Your task to perform on an android device: Open Youtube and go to "Your channel" Image 0: 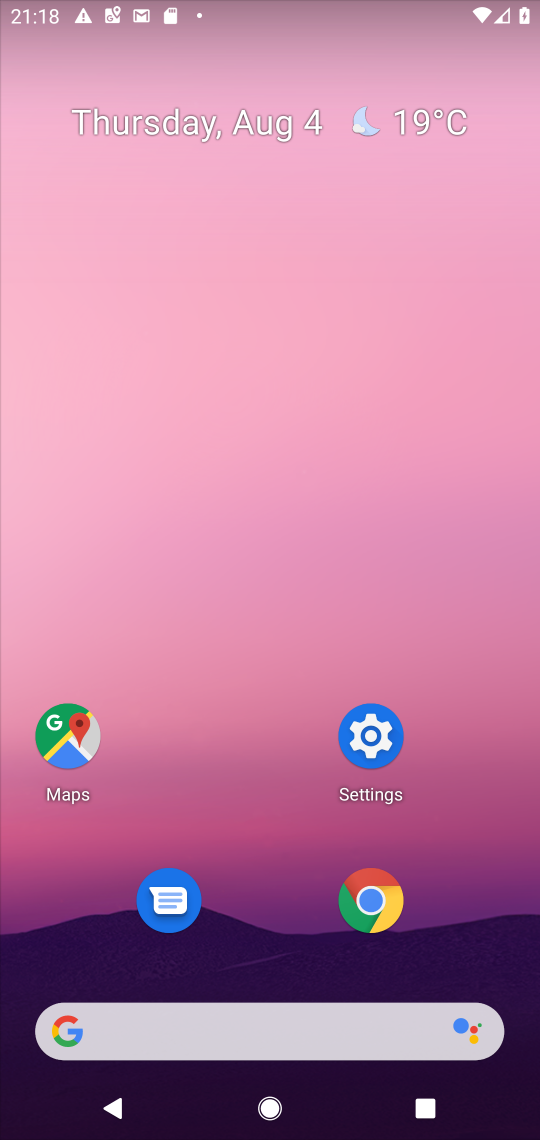
Step 0: press home button
Your task to perform on an android device: Open Youtube and go to "Your channel" Image 1: 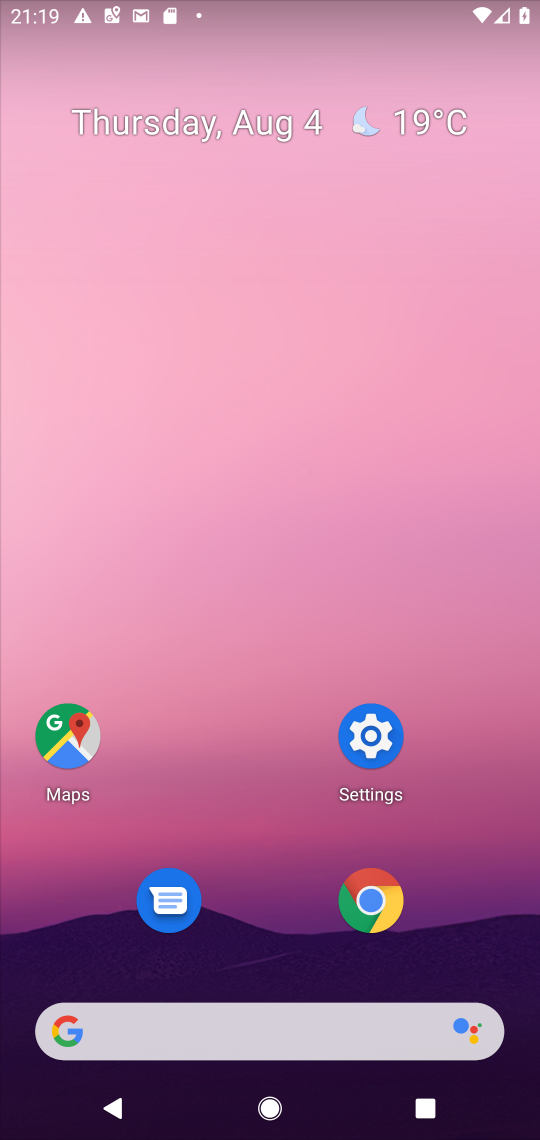
Step 1: drag from (265, 1034) to (479, 17)
Your task to perform on an android device: Open Youtube and go to "Your channel" Image 2: 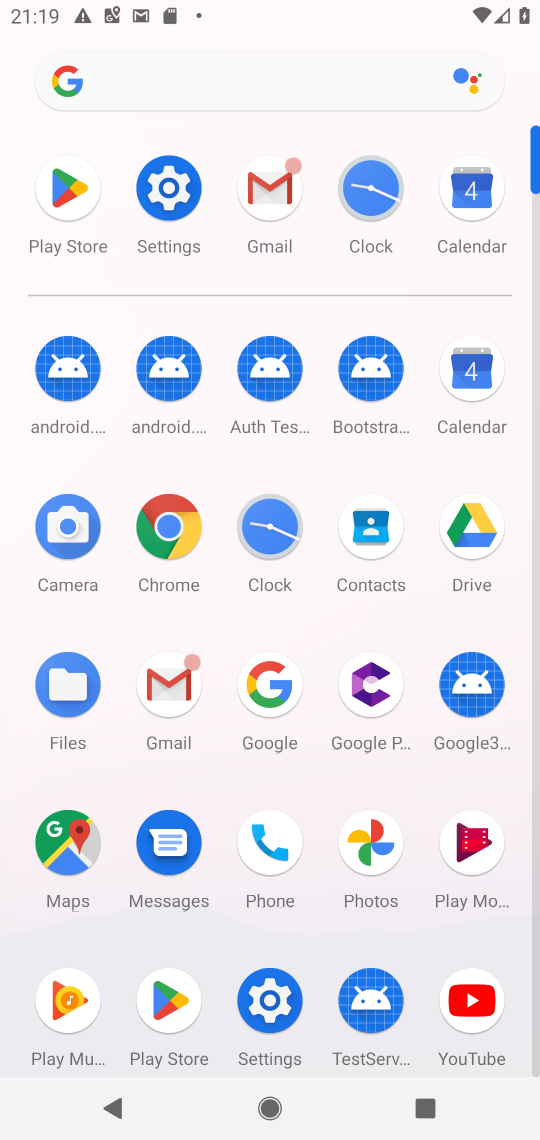
Step 2: click (474, 1001)
Your task to perform on an android device: Open Youtube and go to "Your channel" Image 3: 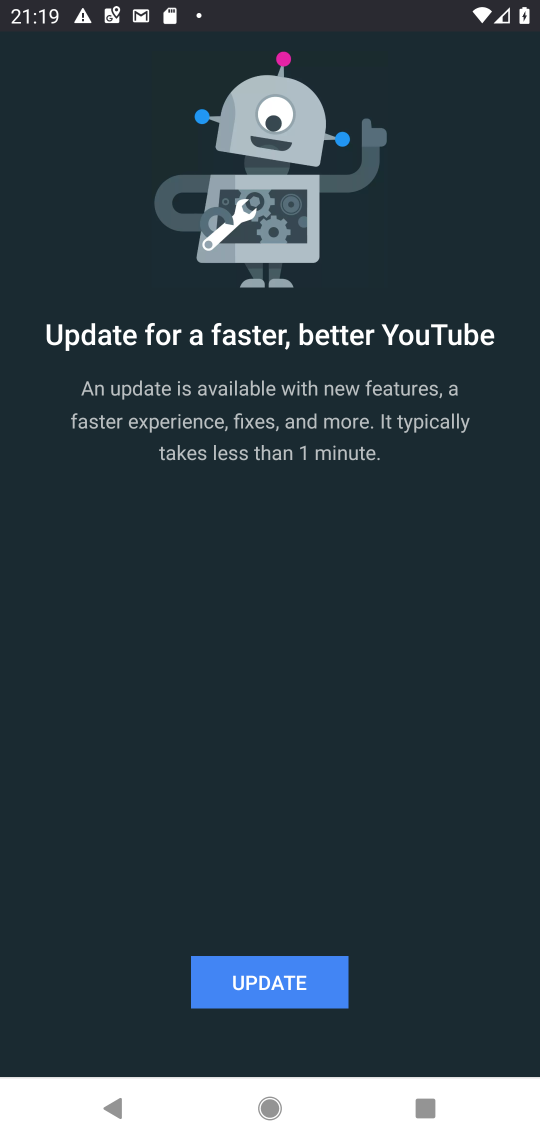
Step 3: click (266, 977)
Your task to perform on an android device: Open Youtube and go to "Your channel" Image 4: 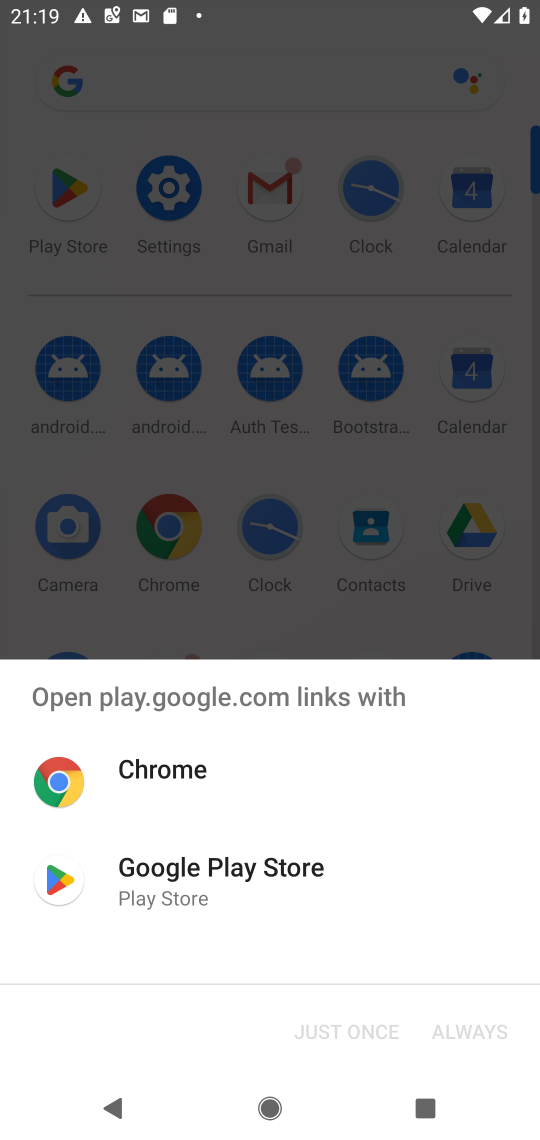
Step 4: click (190, 886)
Your task to perform on an android device: Open Youtube and go to "Your channel" Image 5: 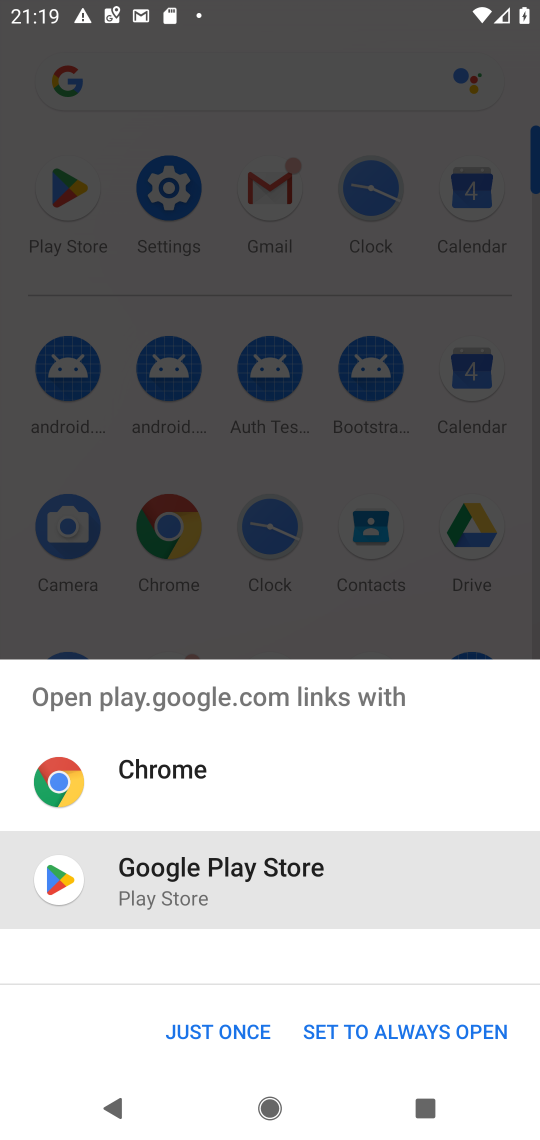
Step 5: click (240, 1030)
Your task to perform on an android device: Open Youtube and go to "Your channel" Image 6: 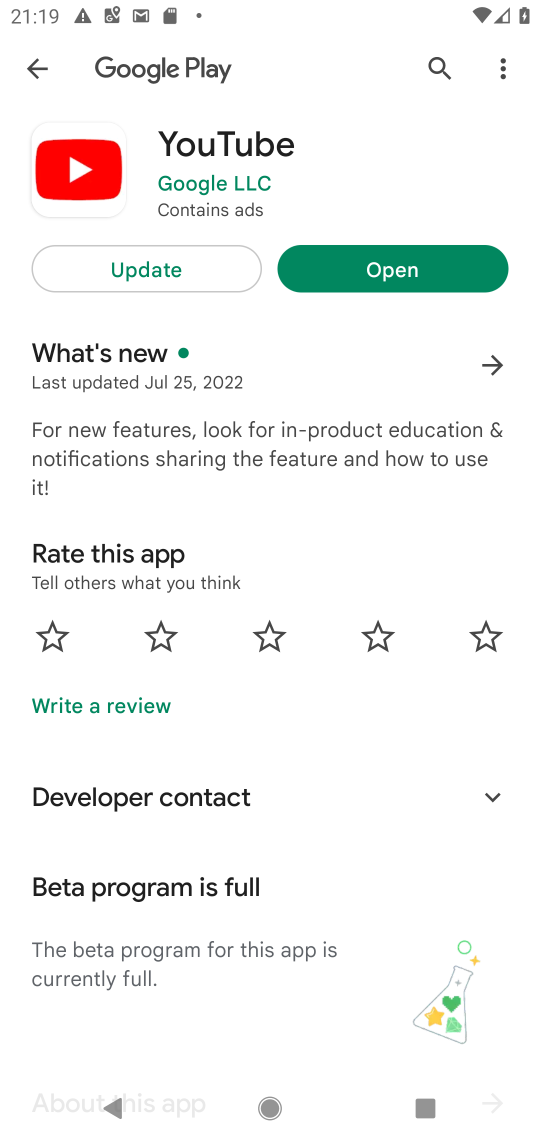
Step 6: click (170, 268)
Your task to perform on an android device: Open Youtube and go to "Your channel" Image 7: 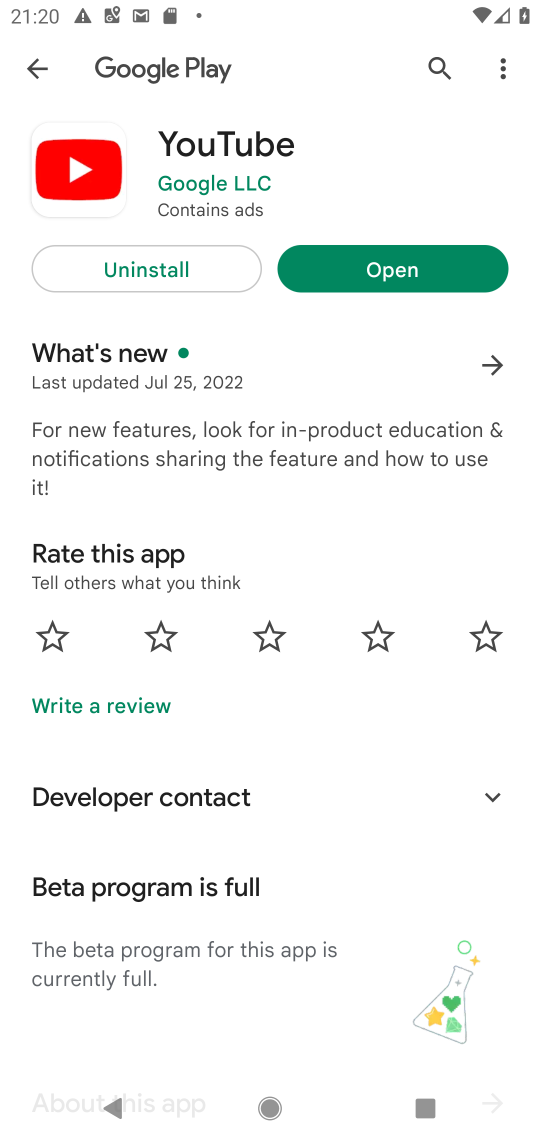
Step 7: click (411, 263)
Your task to perform on an android device: Open Youtube and go to "Your channel" Image 8: 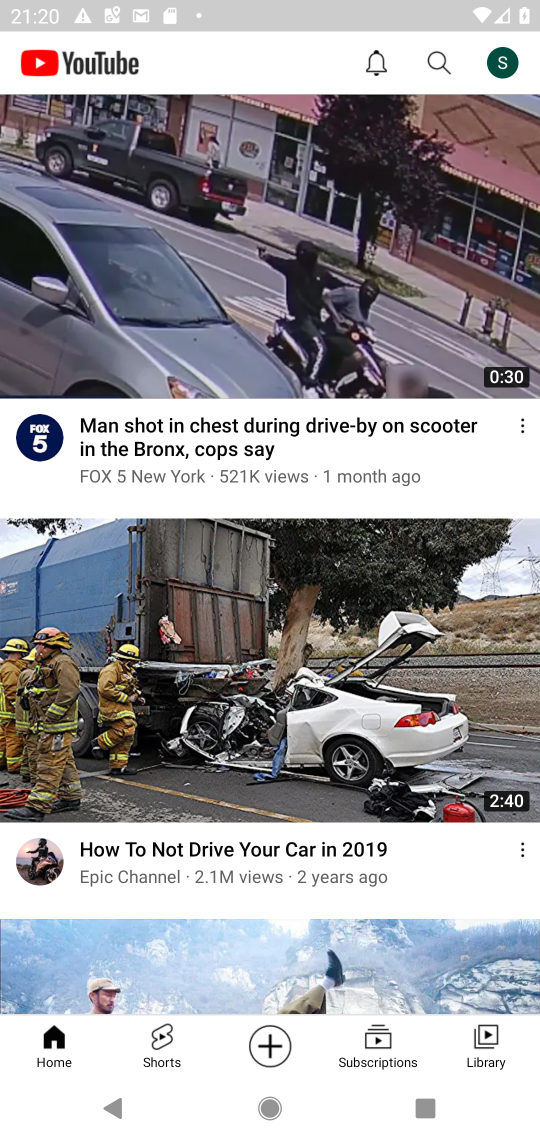
Step 8: click (502, 64)
Your task to perform on an android device: Open Youtube and go to "Your channel" Image 9: 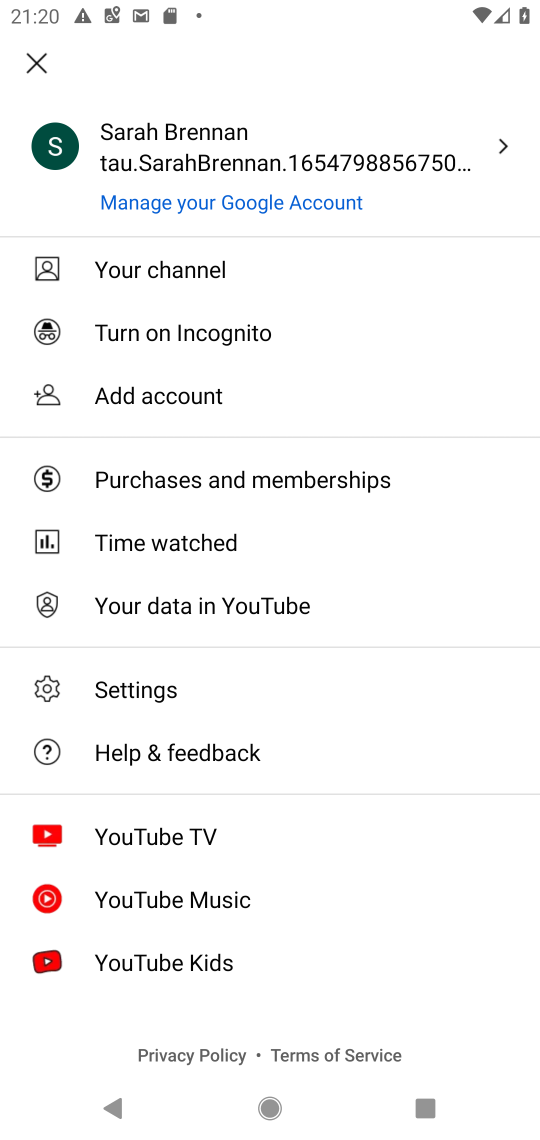
Step 9: click (186, 270)
Your task to perform on an android device: Open Youtube and go to "Your channel" Image 10: 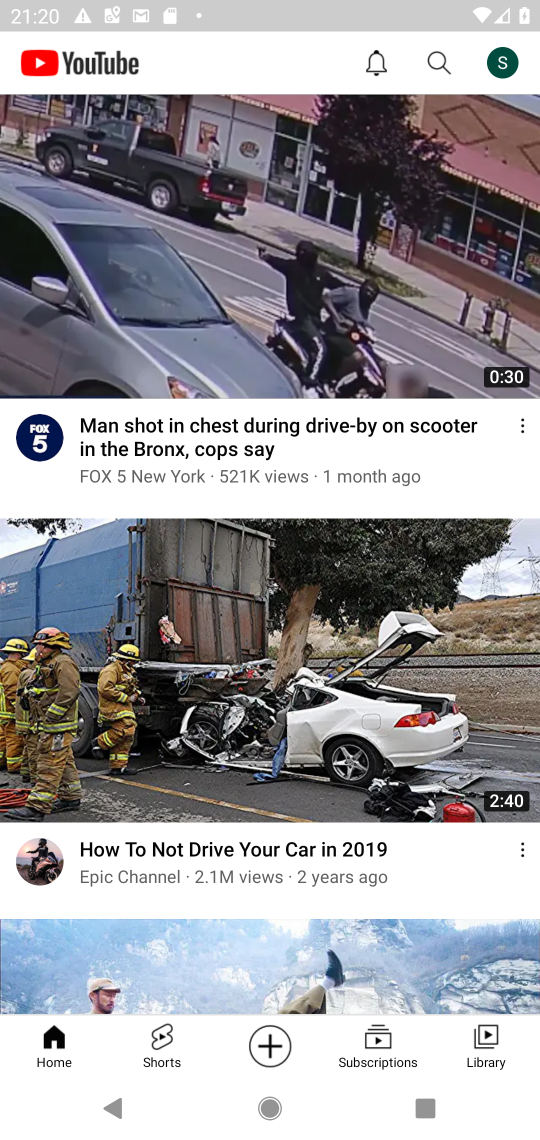
Step 10: click (496, 57)
Your task to perform on an android device: Open Youtube and go to "Your channel" Image 11: 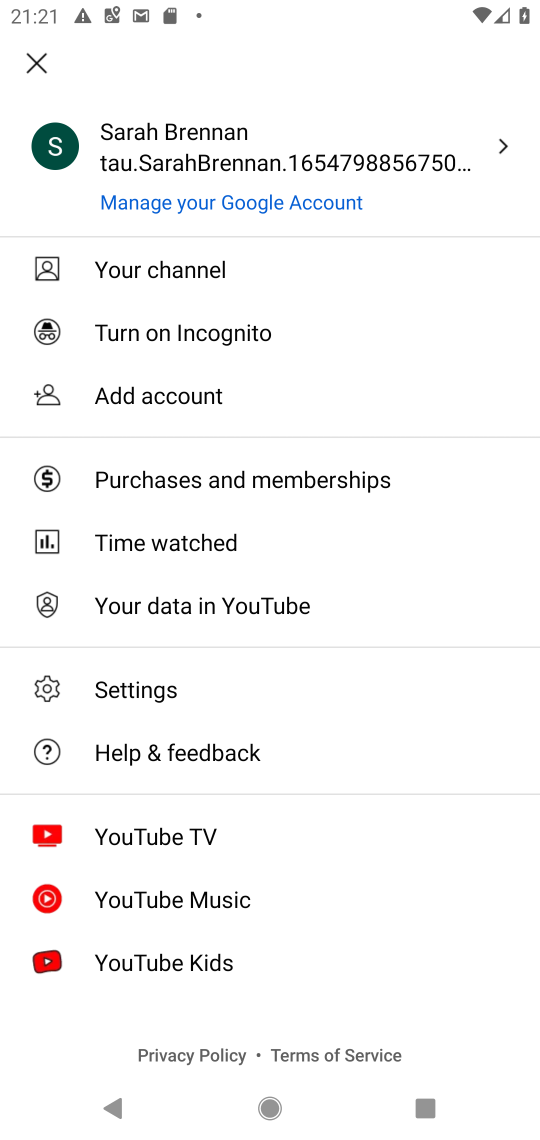
Step 11: click (191, 262)
Your task to perform on an android device: Open Youtube and go to "Your channel" Image 12: 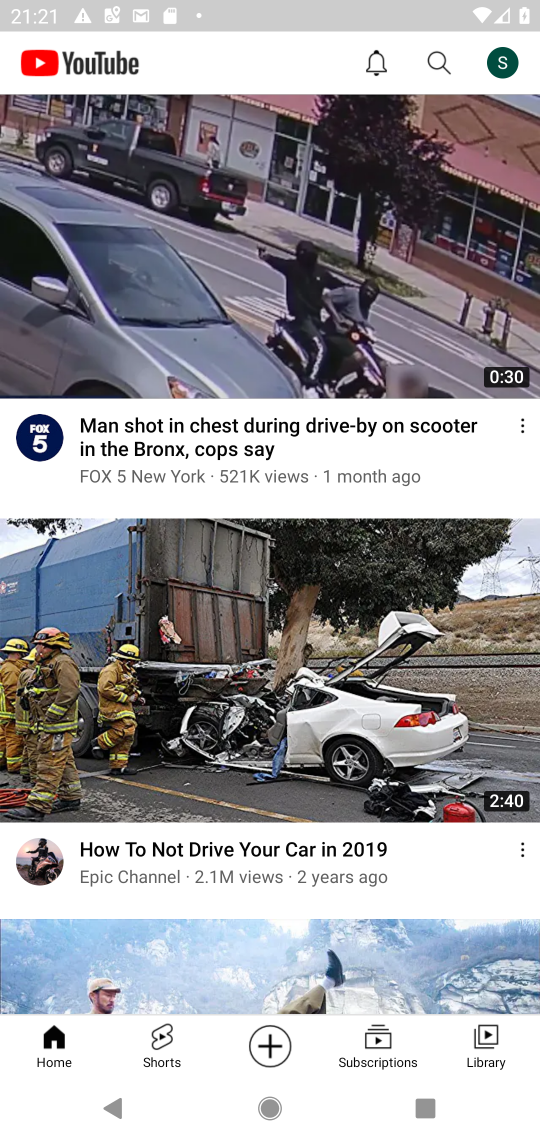
Step 12: task complete